Your task to perform on an android device: Open calendar and show me the first week of next month Image 0: 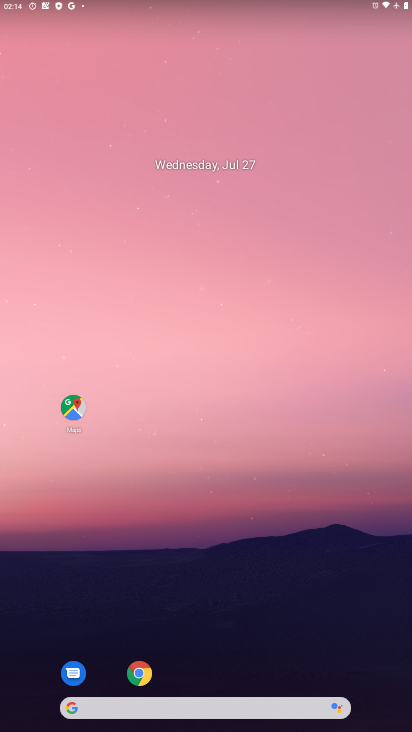
Step 0: drag from (245, 664) to (258, 29)
Your task to perform on an android device: Open calendar and show me the first week of next month Image 1: 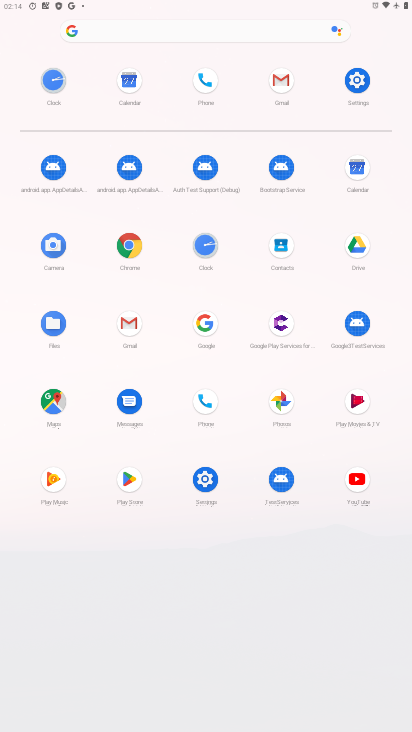
Step 1: click (359, 167)
Your task to perform on an android device: Open calendar and show me the first week of next month Image 2: 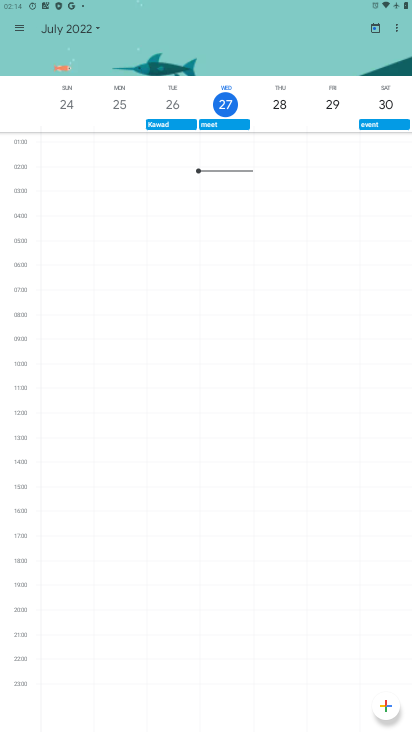
Step 2: click (100, 35)
Your task to perform on an android device: Open calendar and show me the first week of next month Image 3: 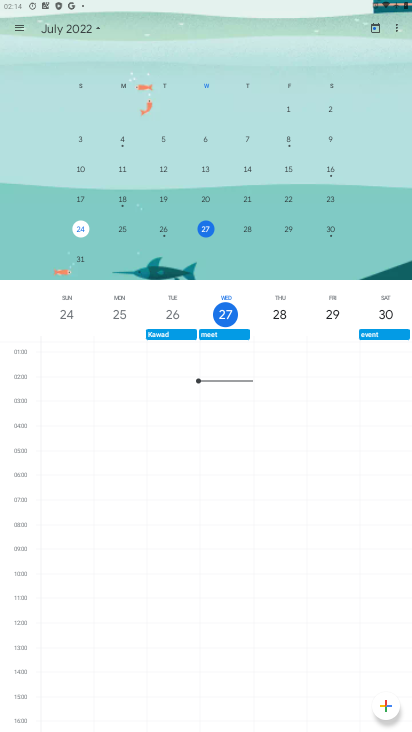
Step 3: drag from (292, 225) to (1, 199)
Your task to perform on an android device: Open calendar and show me the first week of next month Image 4: 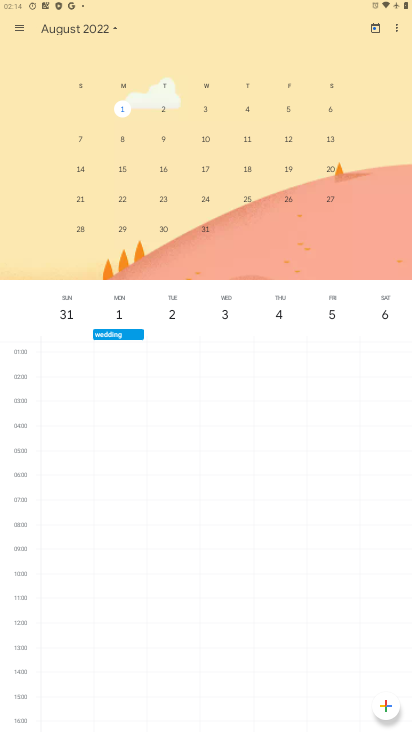
Step 4: click (17, 32)
Your task to perform on an android device: Open calendar and show me the first week of next month Image 5: 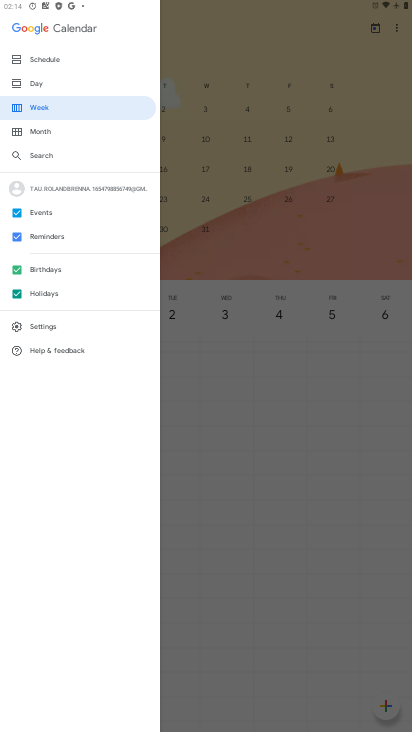
Step 5: click (19, 106)
Your task to perform on an android device: Open calendar and show me the first week of next month Image 6: 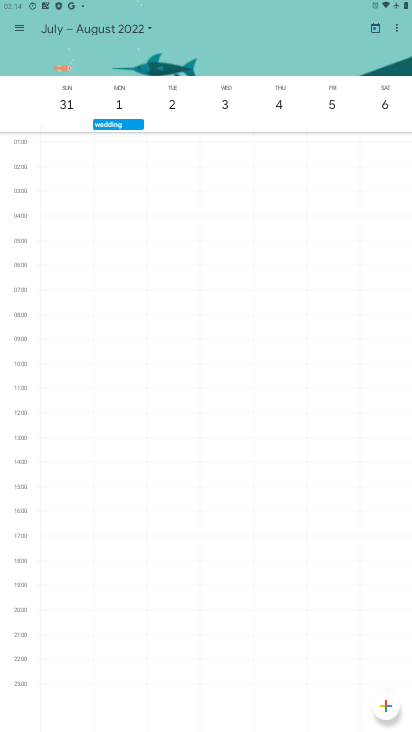
Step 6: task complete